Your task to perform on an android device: Open Google Chrome and open the bookmarks view Image 0: 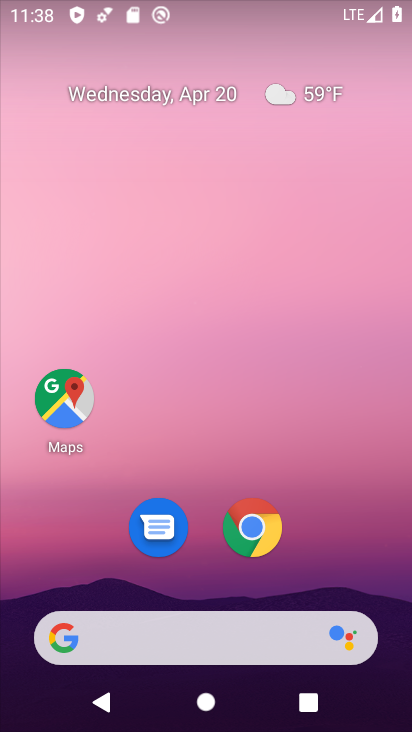
Step 0: drag from (330, 530) to (333, 192)
Your task to perform on an android device: Open Google Chrome and open the bookmarks view Image 1: 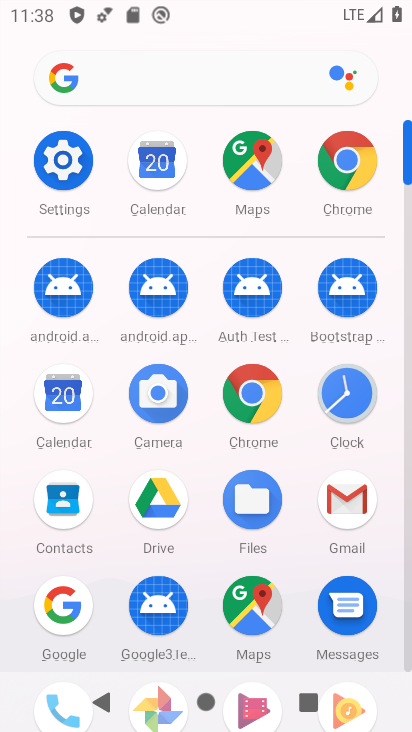
Step 1: click (273, 405)
Your task to perform on an android device: Open Google Chrome and open the bookmarks view Image 2: 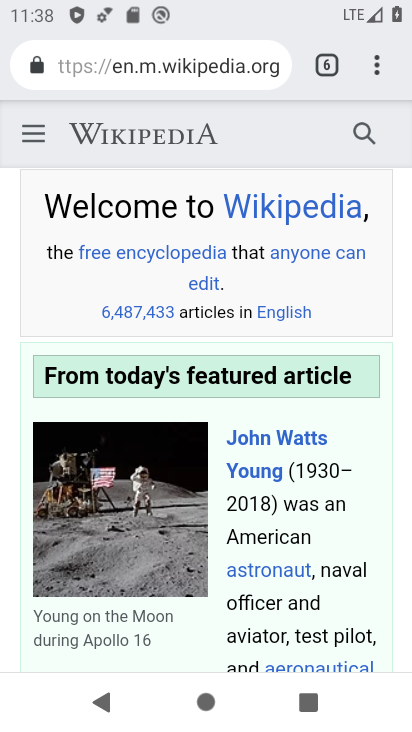
Step 2: task complete